Your task to perform on an android device: Search for vegetarian restaurants on Maps Image 0: 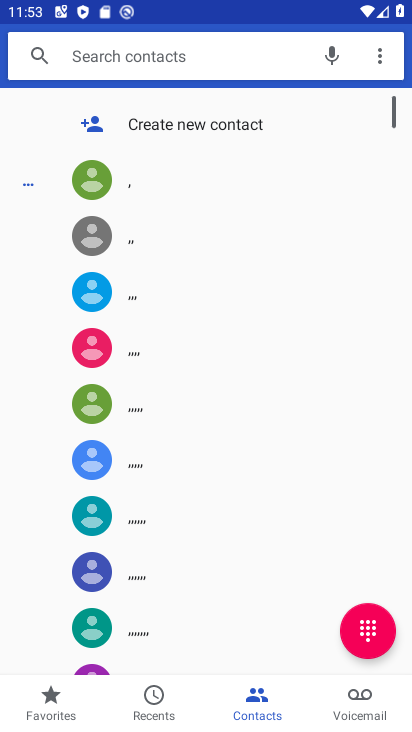
Step 0: press home button
Your task to perform on an android device: Search for vegetarian restaurants on Maps Image 1: 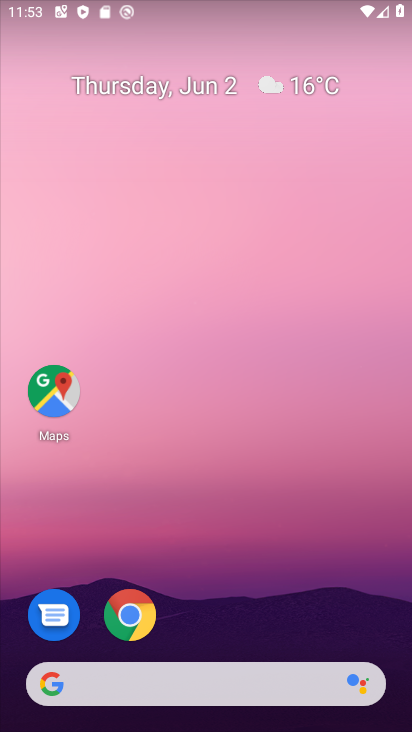
Step 1: click (35, 380)
Your task to perform on an android device: Search for vegetarian restaurants on Maps Image 2: 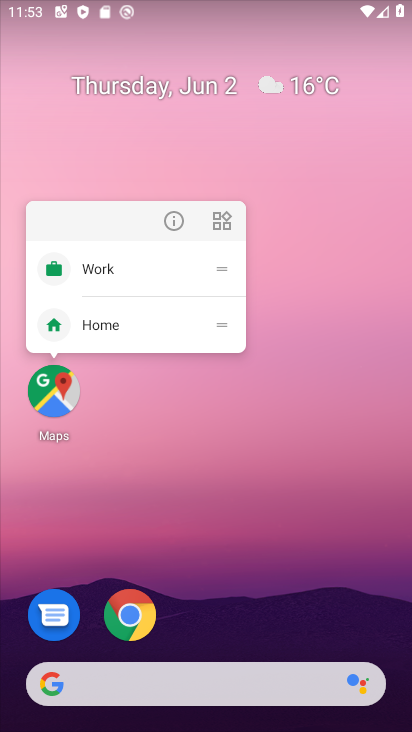
Step 2: click (45, 389)
Your task to perform on an android device: Search for vegetarian restaurants on Maps Image 3: 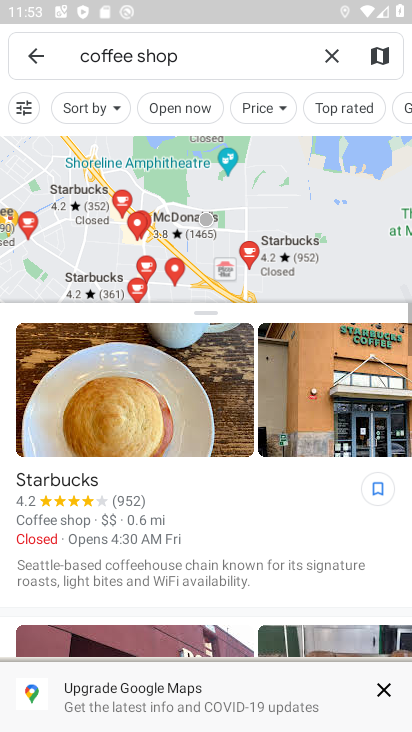
Step 3: click (325, 53)
Your task to perform on an android device: Search for vegetarian restaurants on Maps Image 4: 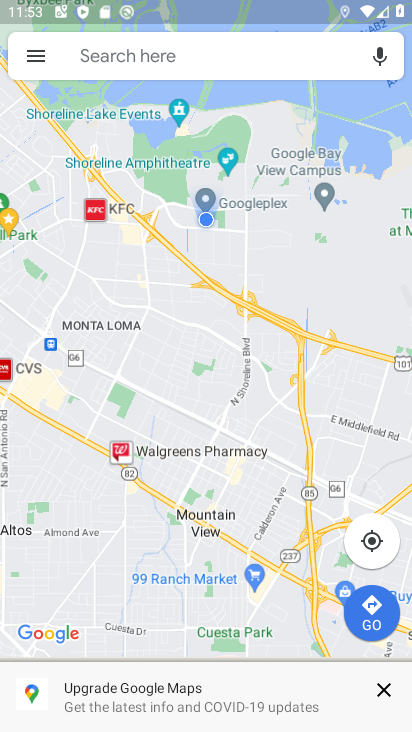
Step 4: click (191, 51)
Your task to perform on an android device: Search for vegetarian restaurants on Maps Image 5: 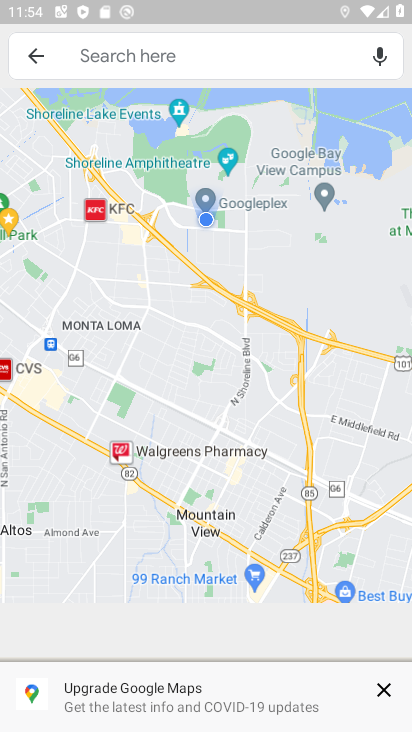
Step 5: click (209, 32)
Your task to perform on an android device: Search for vegetarian restaurants on Maps Image 6: 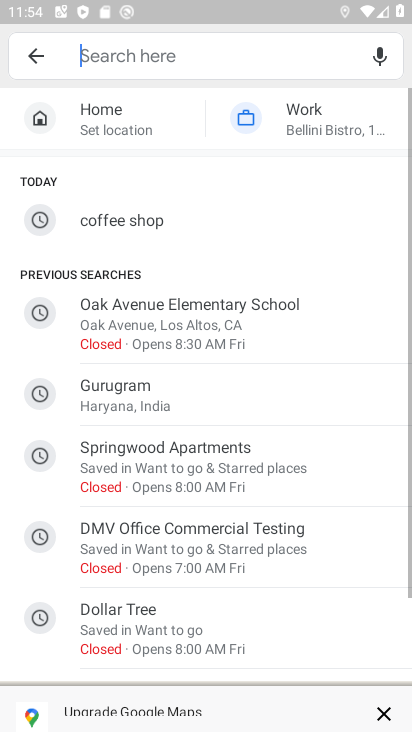
Step 6: click (210, 52)
Your task to perform on an android device: Search for vegetarian restaurants on Maps Image 7: 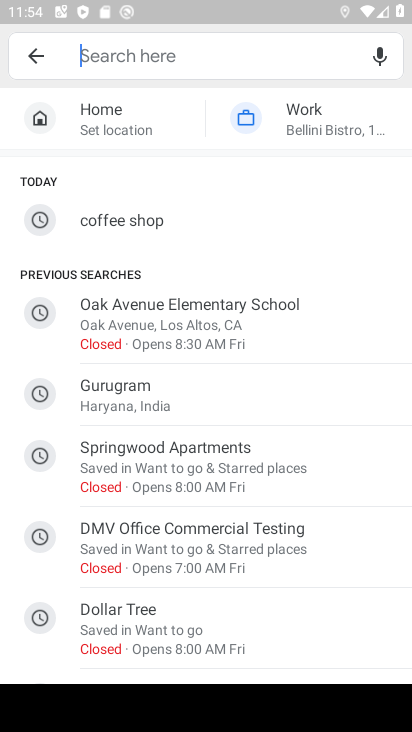
Step 7: click (200, 55)
Your task to perform on an android device: Search for vegetarian restaurants on Maps Image 8: 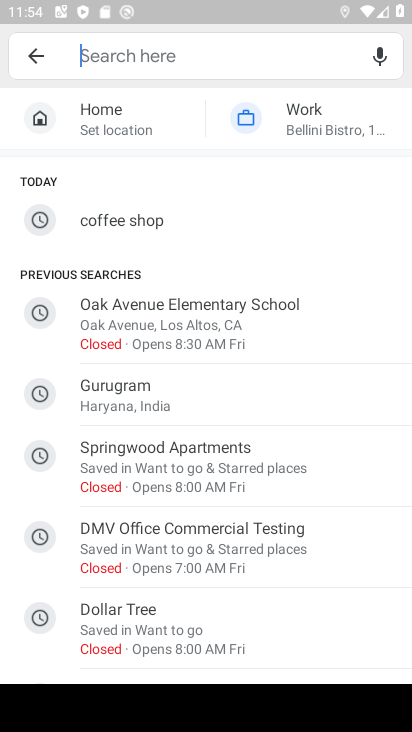
Step 8: type "vegetarian restaurants "
Your task to perform on an android device: Search for vegetarian restaurants on Maps Image 9: 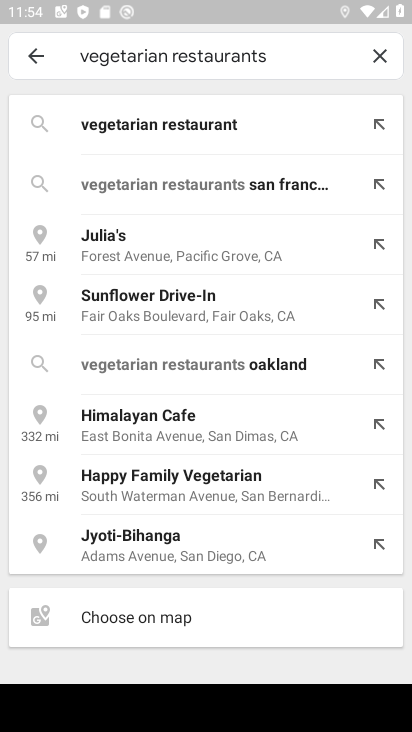
Step 9: click (178, 136)
Your task to perform on an android device: Search for vegetarian restaurants on Maps Image 10: 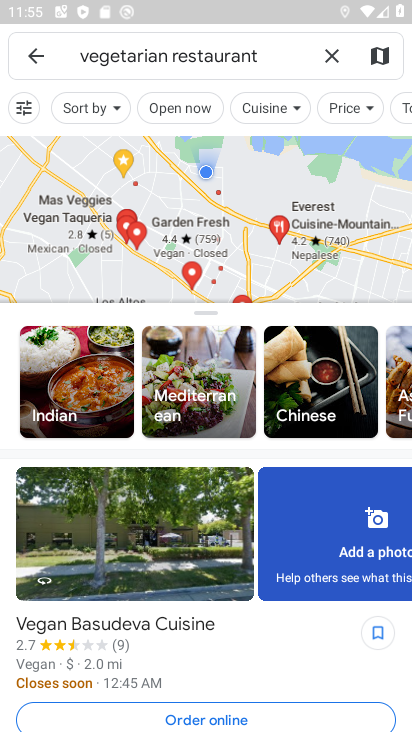
Step 10: task complete